Your task to perform on an android device: turn on showing notifications on the lock screen Image 0: 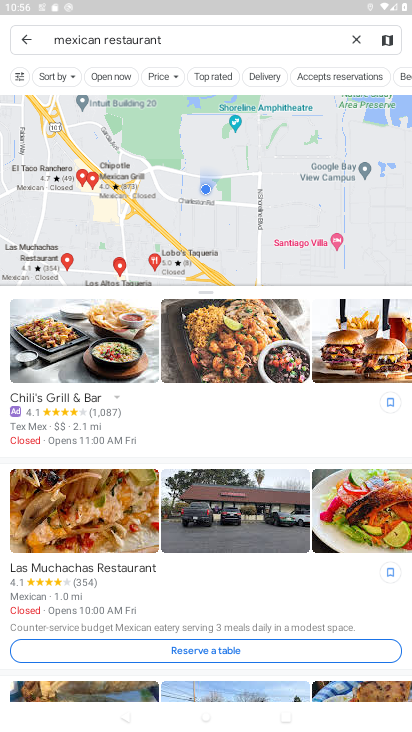
Step 0: press home button
Your task to perform on an android device: turn on showing notifications on the lock screen Image 1: 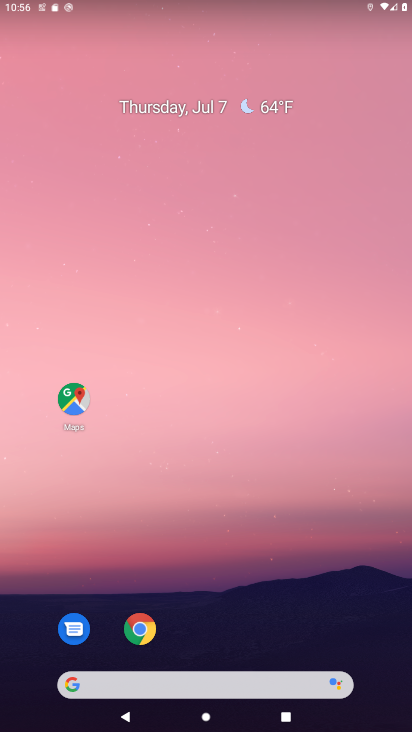
Step 1: drag from (223, 634) to (229, 124)
Your task to perform on an android device: turn on showing notifications on the lock screen Image 2: 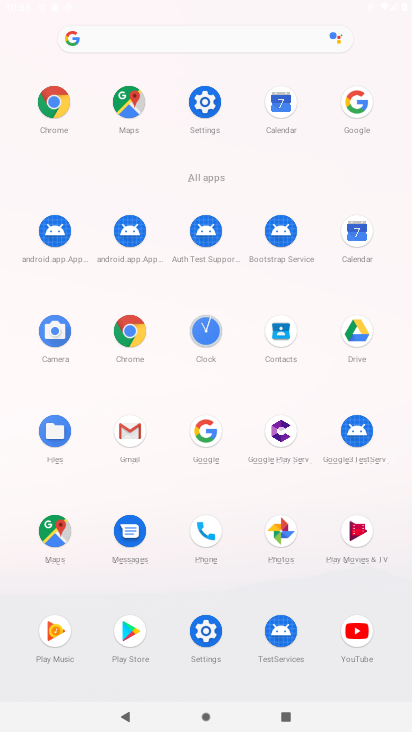
Step 2: click (206, 102)
Your task to perform on an android device: turn on showing notifications on the lock screen Image 3: 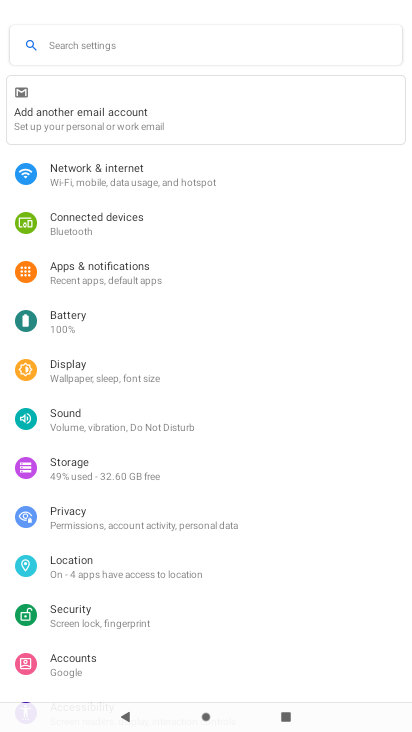
Step 3: click (106, 269)
Your task to perform on an android device: turn on showing notifications on the lock screen Image 4: 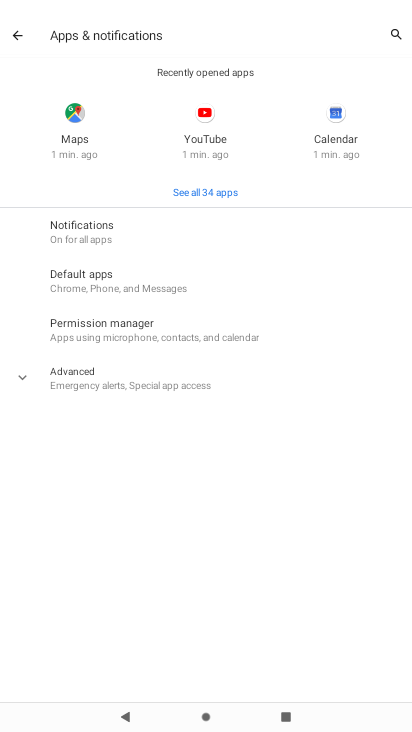
Step 4: click (91, 235)
Your task to perform on an android device: turn on showing notifications on the lock screen Image 5: 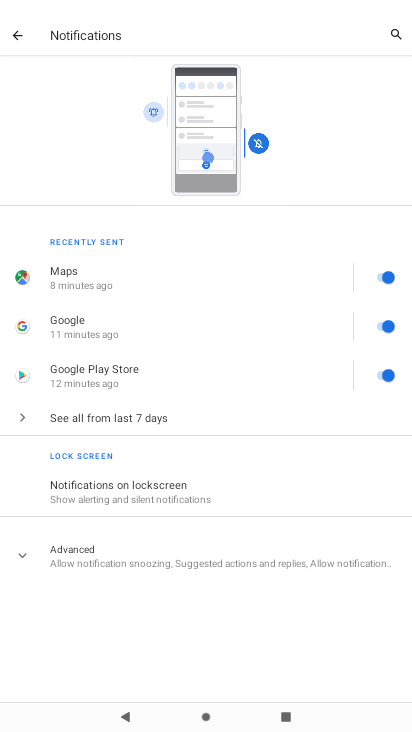
Step 5: click (151, 501)
Your task to perform on an android device: turn on showing notifications on the lock screen Image 6: 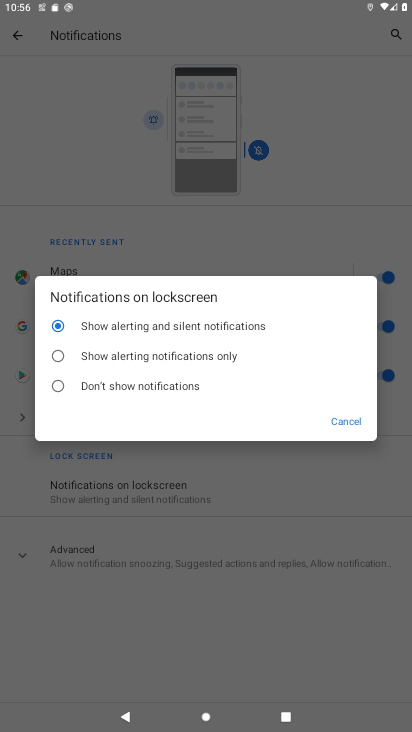
Step 6: click (57, 323)
Your task to perform on an android device: turn on showing notifications on the lock screen Image 7: 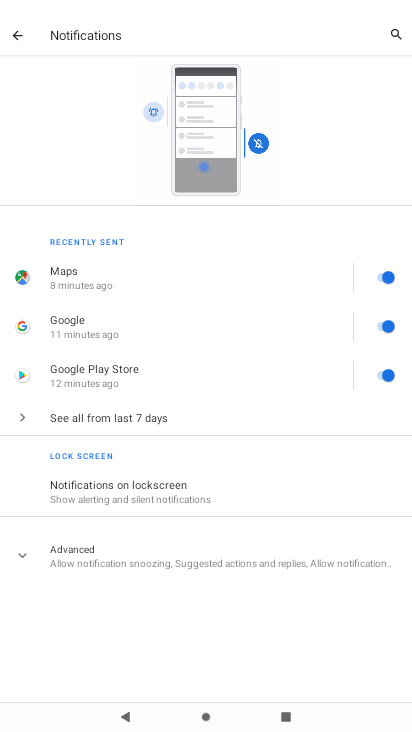
Step 7: task complete